Your task to perform on an android device: Search for "logitech g pro" on costco, select the first entry, and add it to the cart. Image 0: 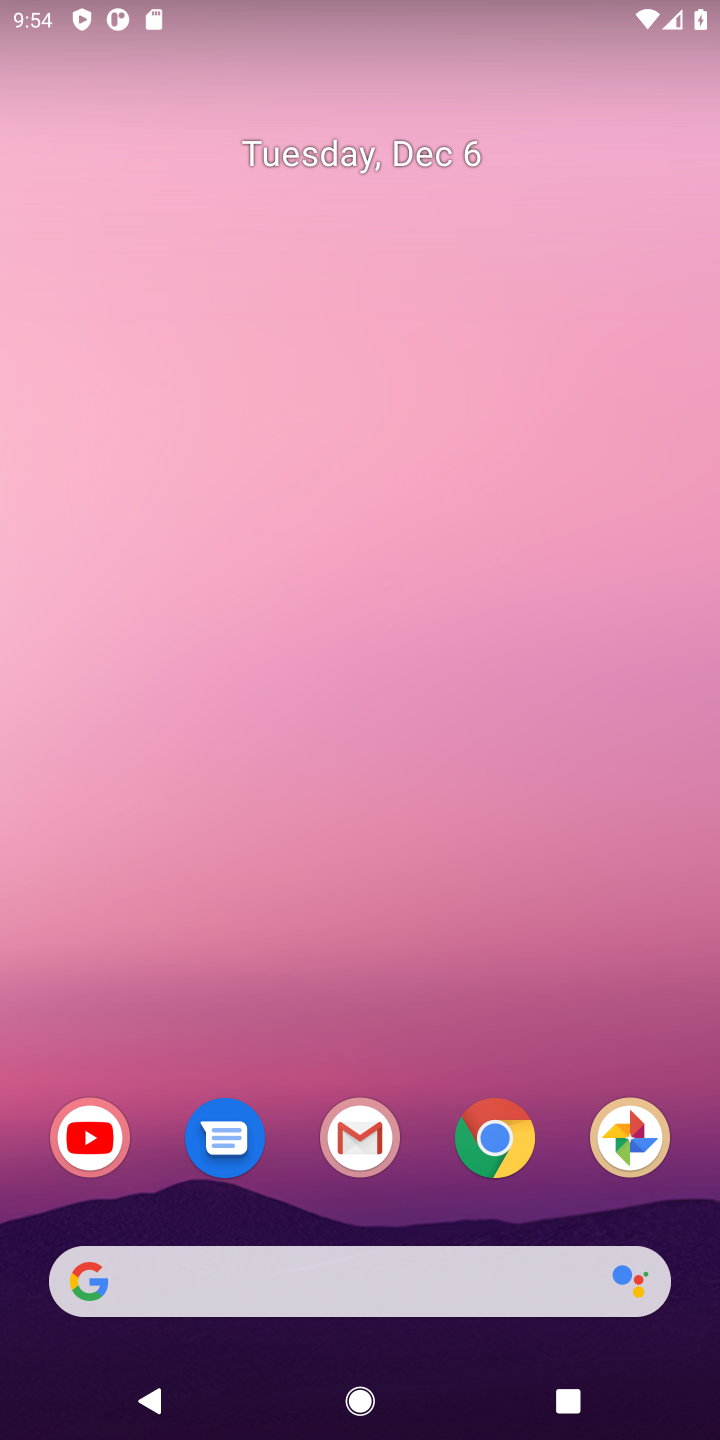
Step 0: click (508, 1165)
Your task to perform on an android device: Search for "logitech g pro" on costco, select the first entry, and add it to the cart. Image 1: 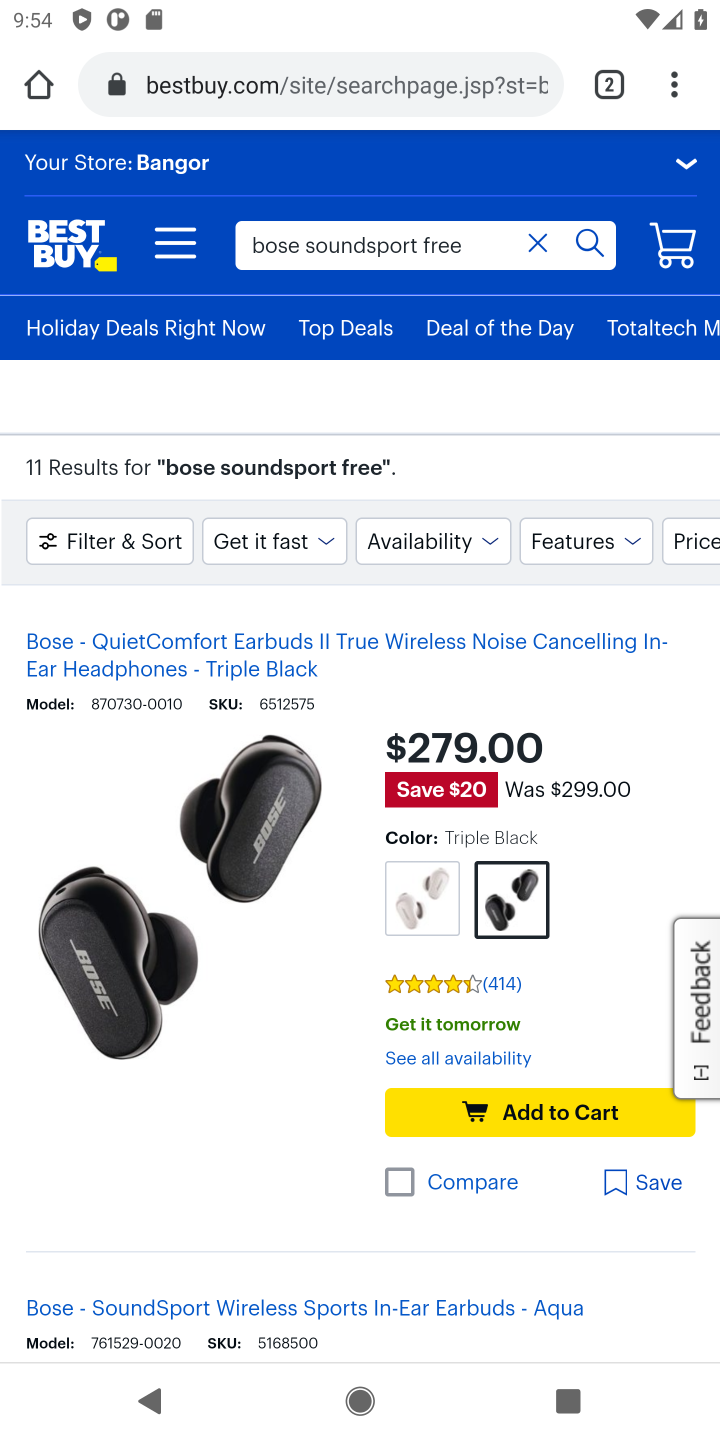
Step 1: click (286, 99)
Your task to perform on an android device: Search for "logitech g pro" on costco, select the first entry, and add it to the cart. Image 2: 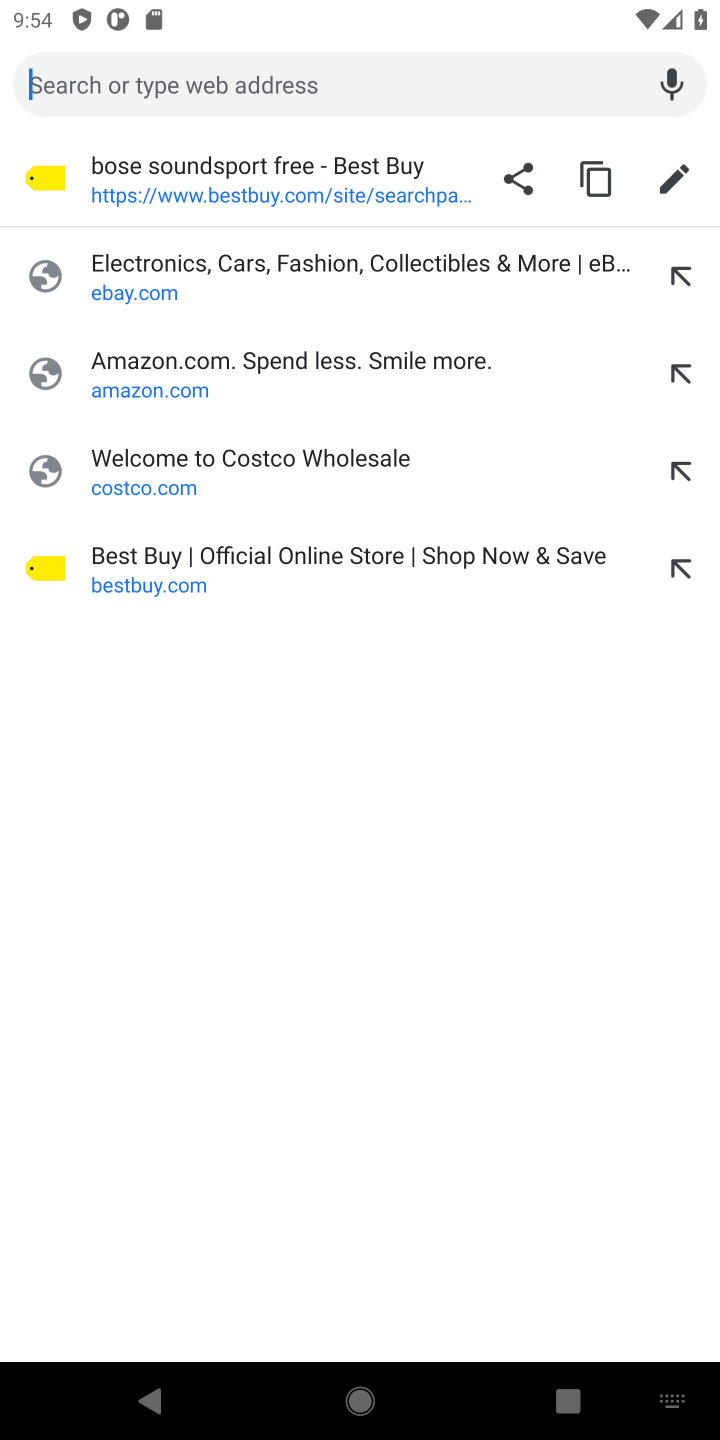
Step 2: click (111, 489)
Your task to perform on an android device: Search for "logitech g pro" on costco, select the first entry, and add it to the cart. Image 3: 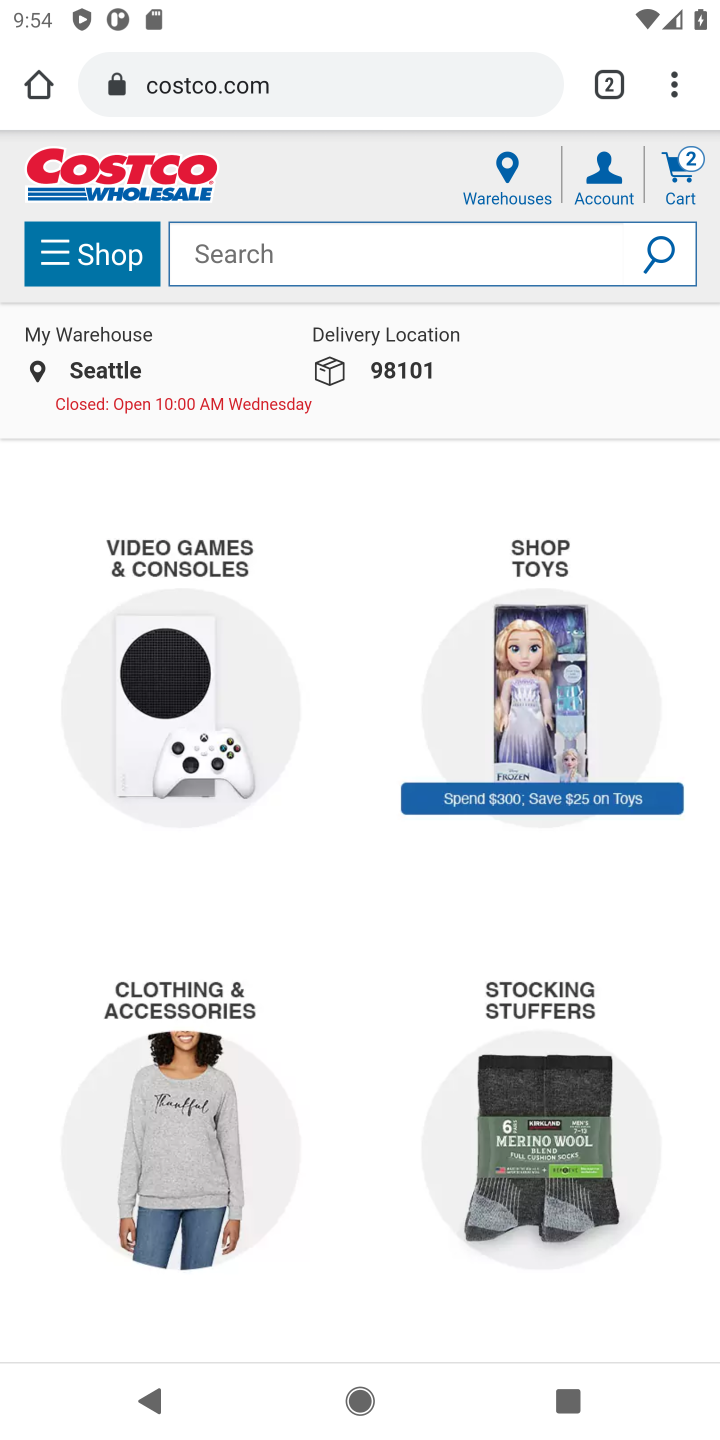
Step 3: click (229, 254)
Your task to perform on an android device: Search for "logitech g pro" on costco, select the first entry, and add it to the cart. Image 4: 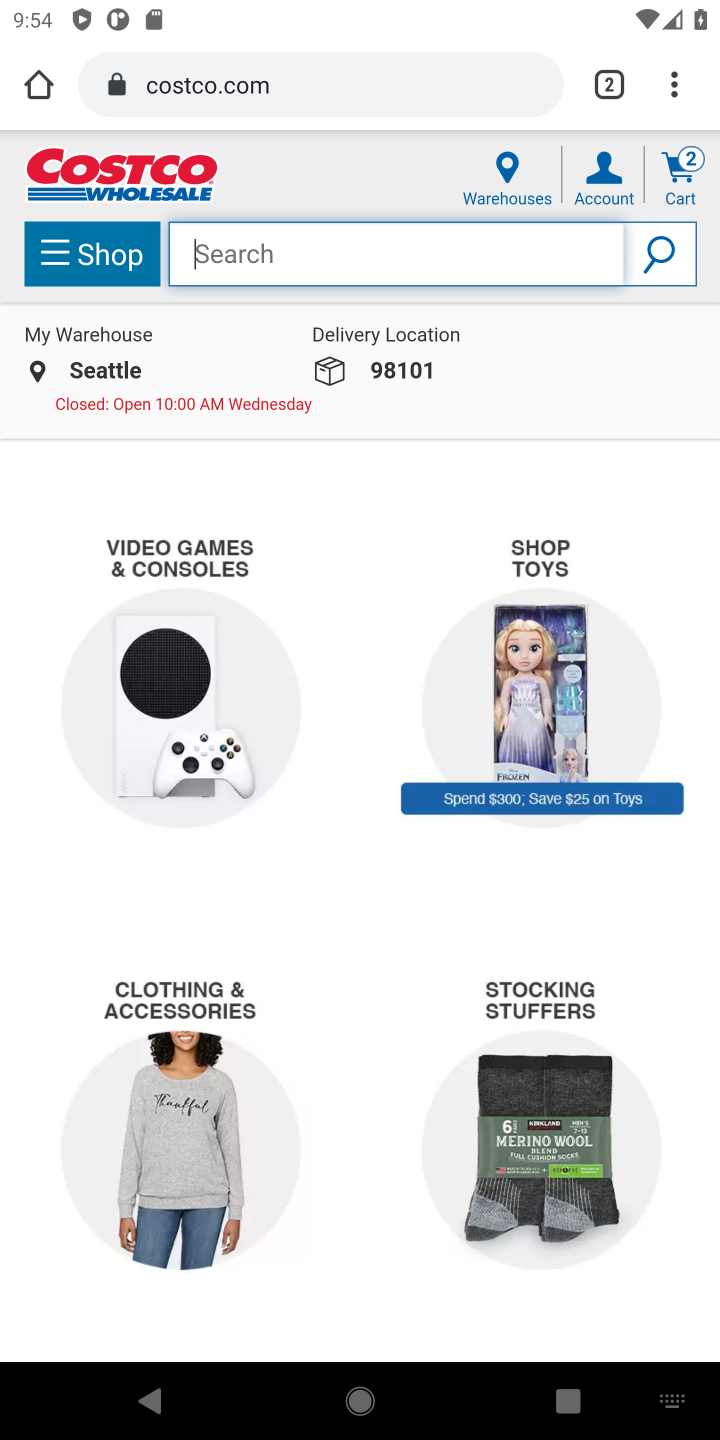
Step 4: type "logitech g pro"
Your task to perform on an android device: Search for "logitech g pro" on costco, select the first entry, and add it to the cart. Image 5: 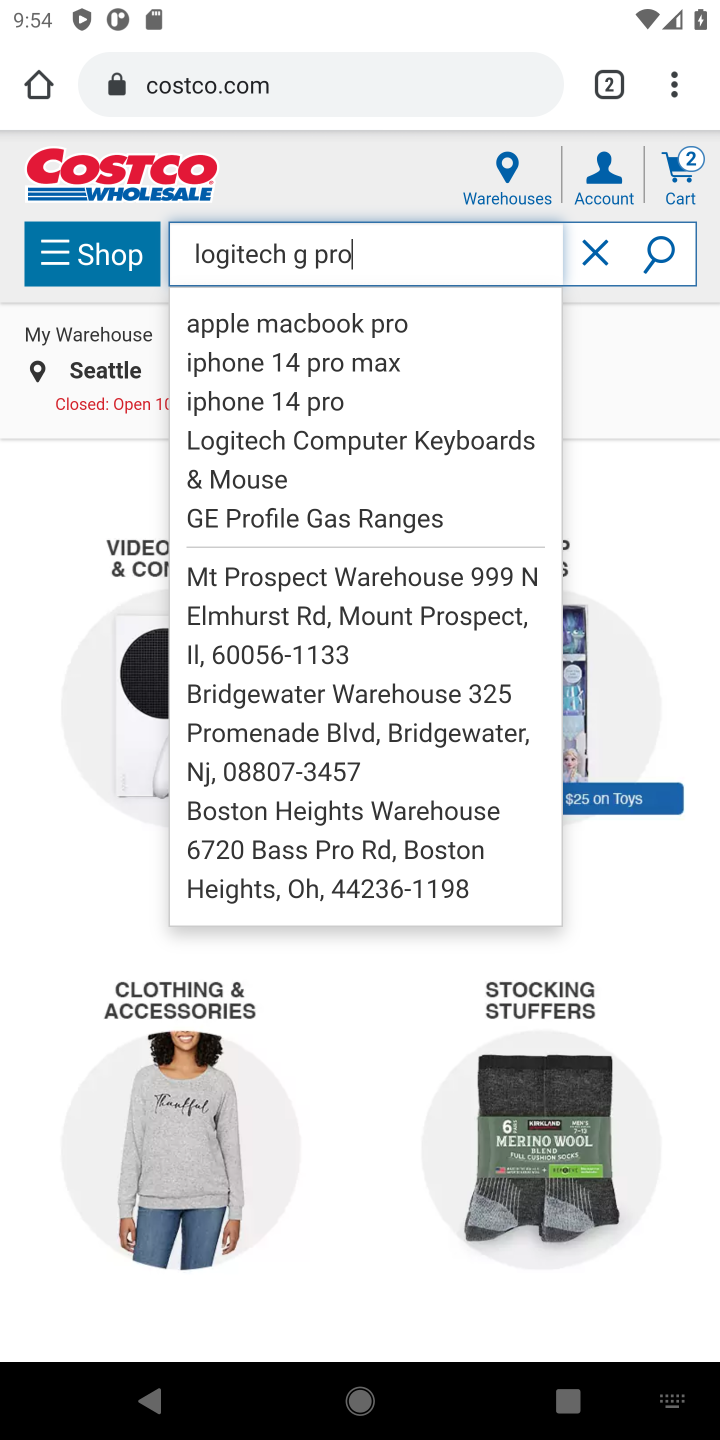
Step 5: click (649, 261)
Your task to perform on an android device: Search for "logitech g pro" on costco, select the first entry, and add it to the cart. Image 6: 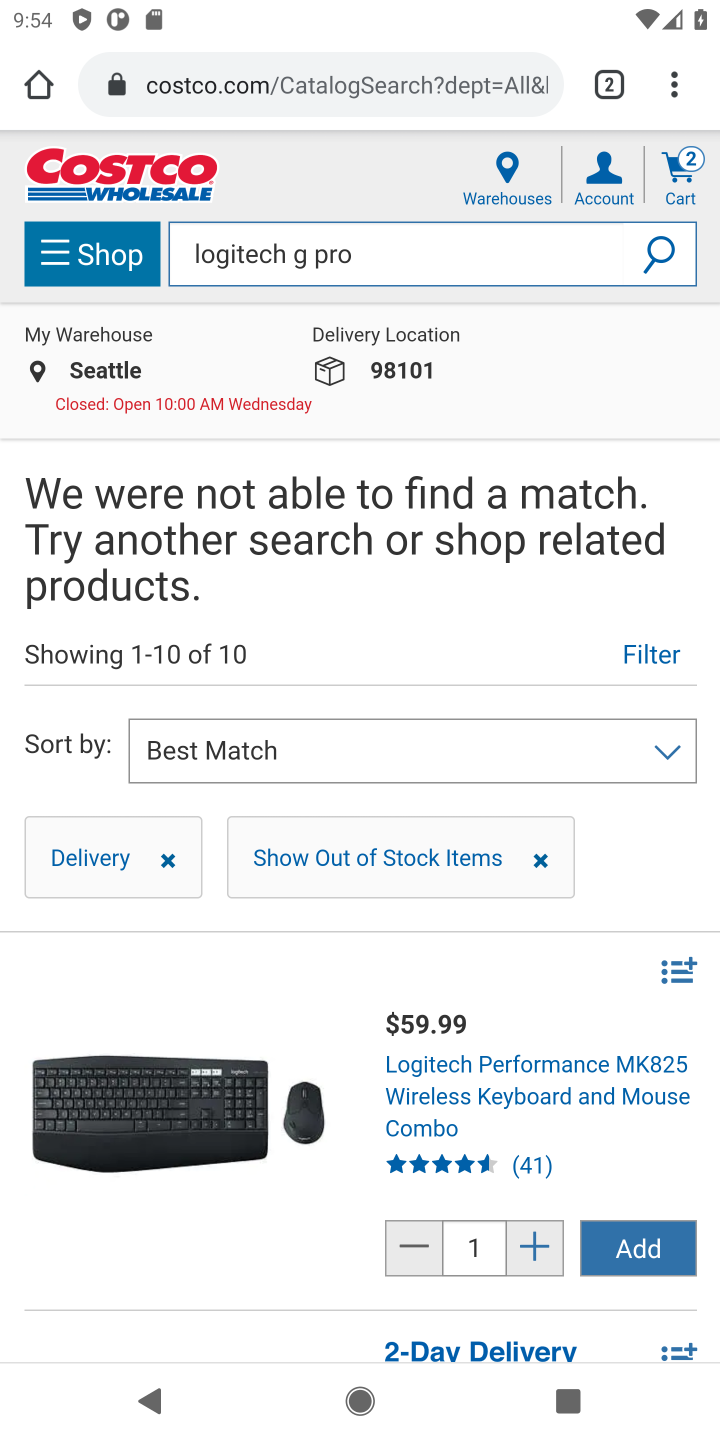
Step 6: task complete